Your task to perform on an android device: open app "Adobe Acrobat Reader" (install if not already installed) Image 0: 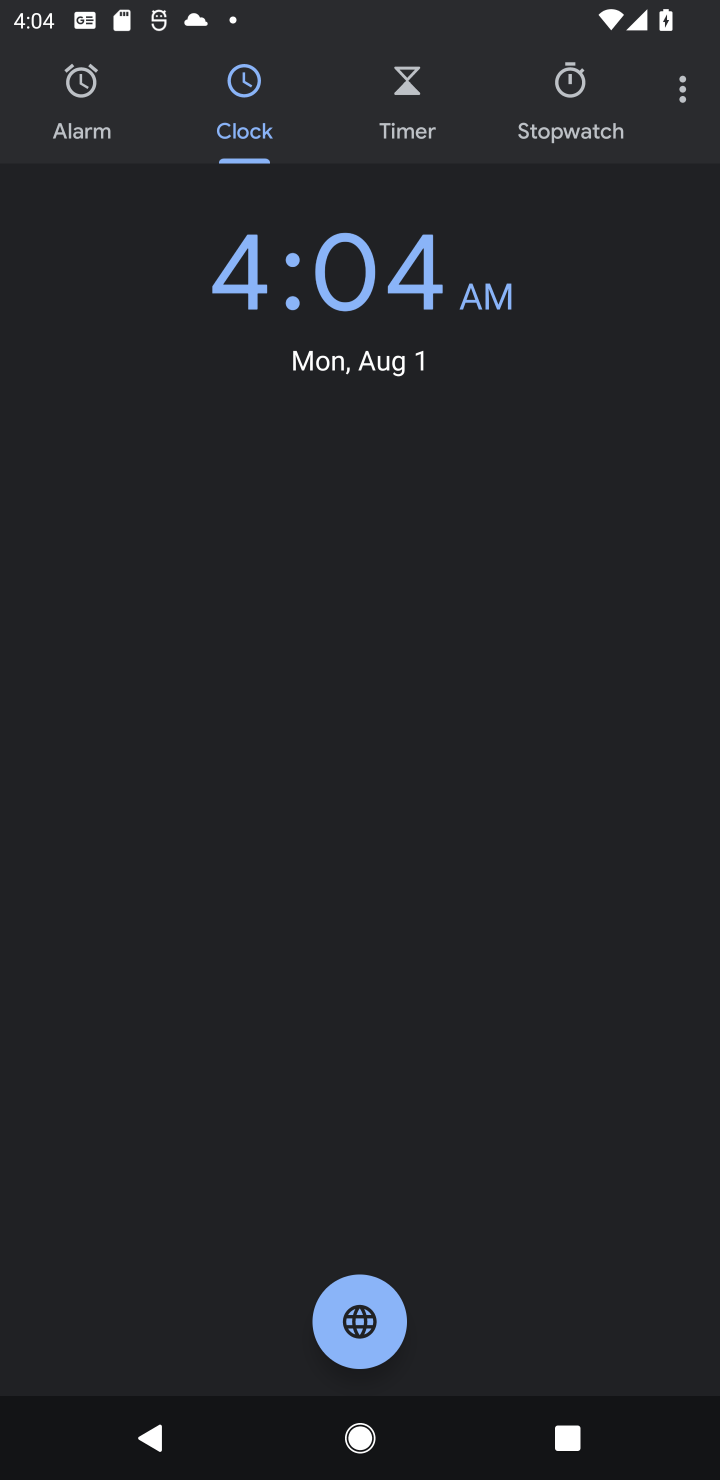
Step 0: press home button
Your task to perform on an android device: open app "Adobe Acrobat Reader" (install if not already installed) Image 1: 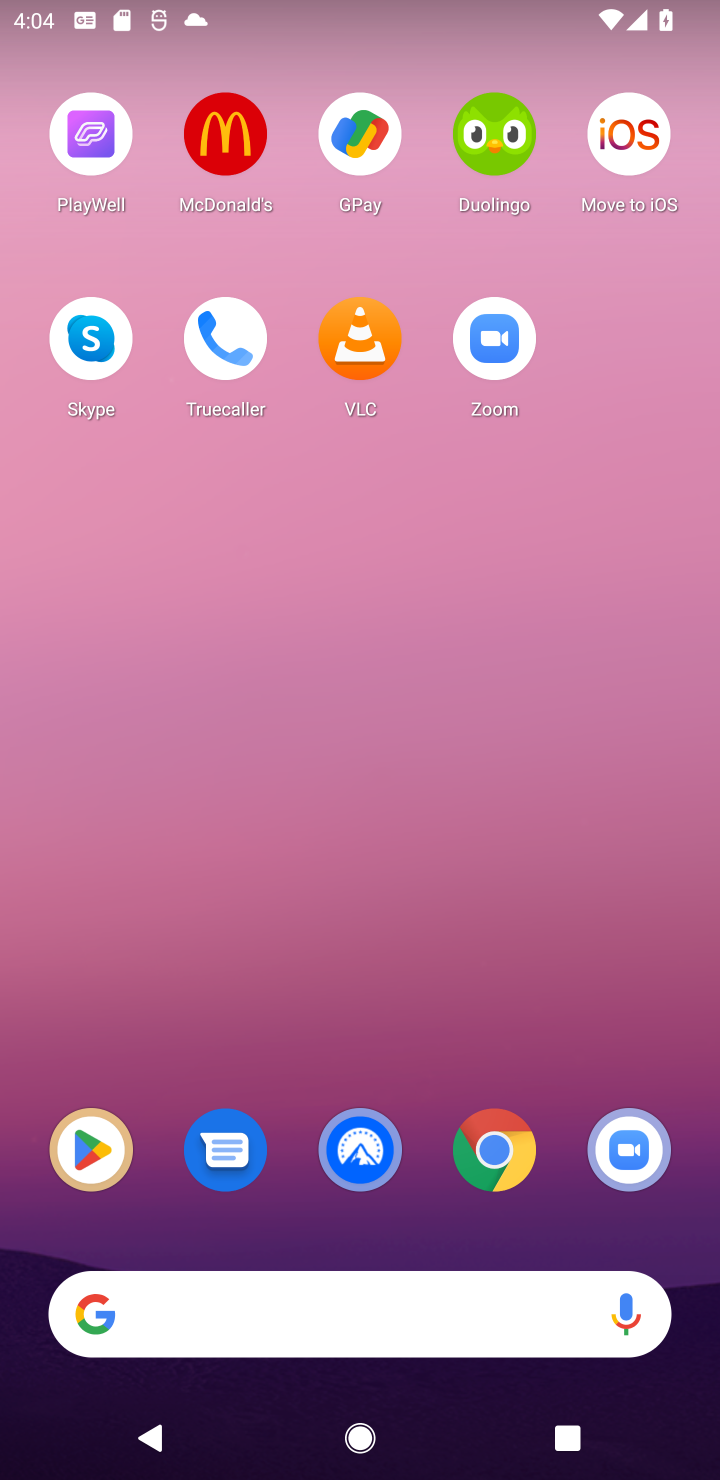
Step 1: click (388, 1295)
Your task to perform on an android device: open app "Adobe Acrobat Reader" (install if not already installed) Image 2: 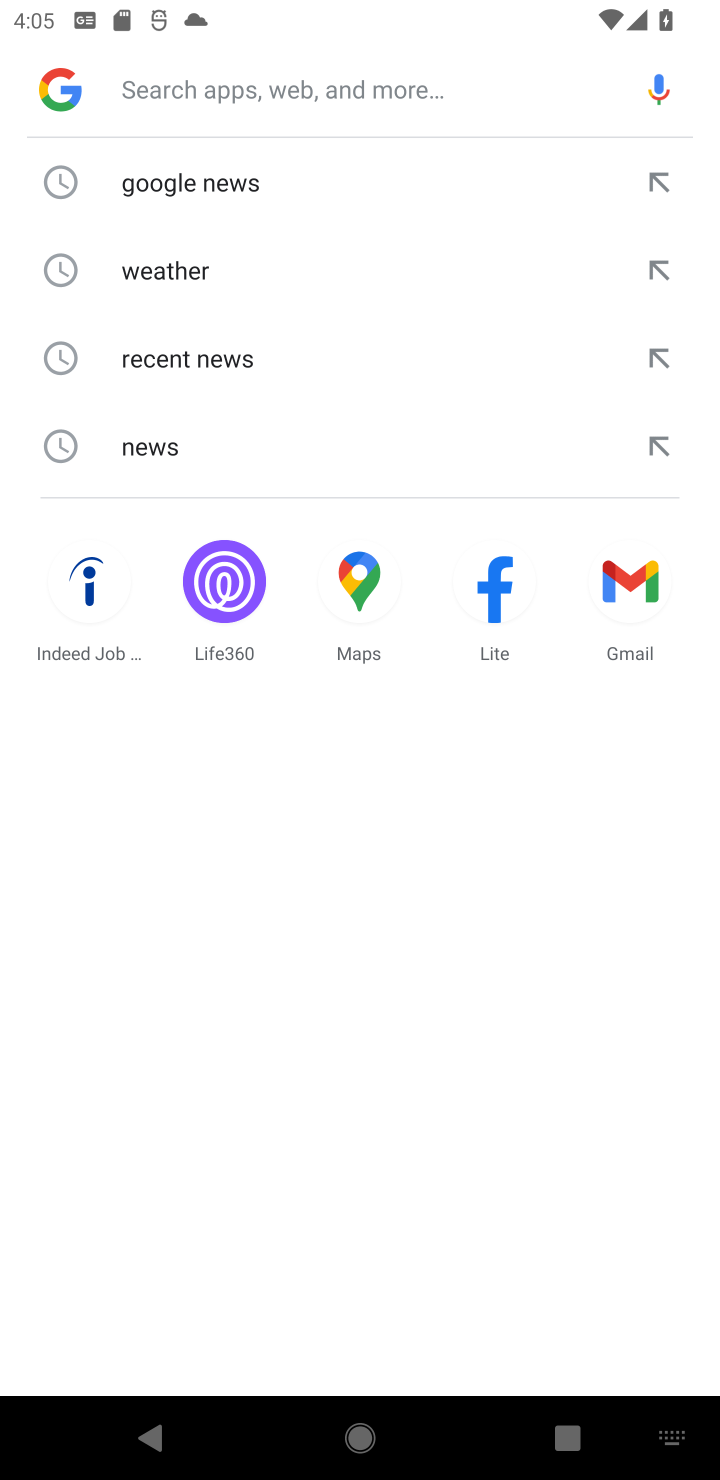
Step 2: type "adobe acrobat"
Your task to perform on an android device: open app "Adobe Acrobat Reader" (install if not already installed) Image 3: 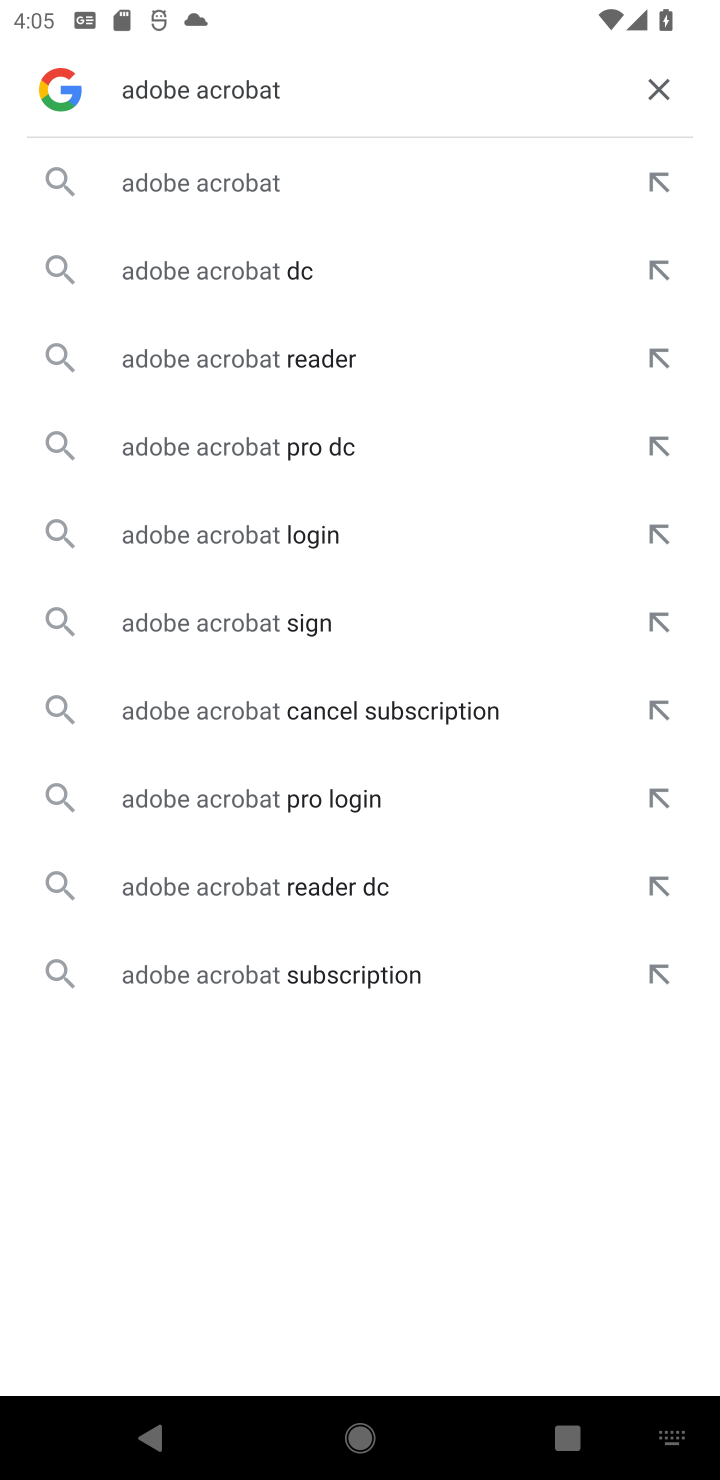
Step 3: click (388, 360)
Your task to perform on an android device: open app "Adobe Acrobat Reader" (install if not already installed) Image 4: 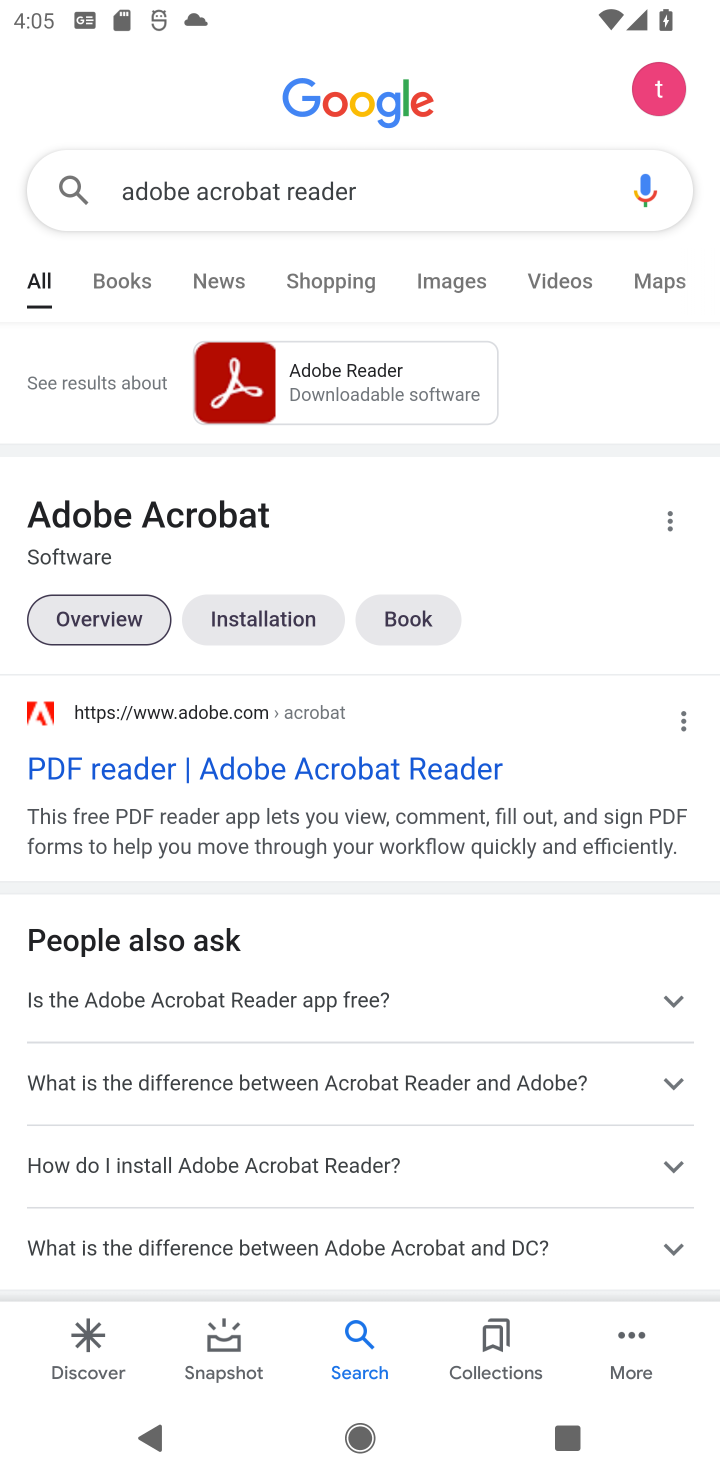
Step 4: drag from (477, 1115) to (471, 324)
Your task to perform on an android device: open app "Adobe Acrobat Reader" (install if not already installed) Image 5: 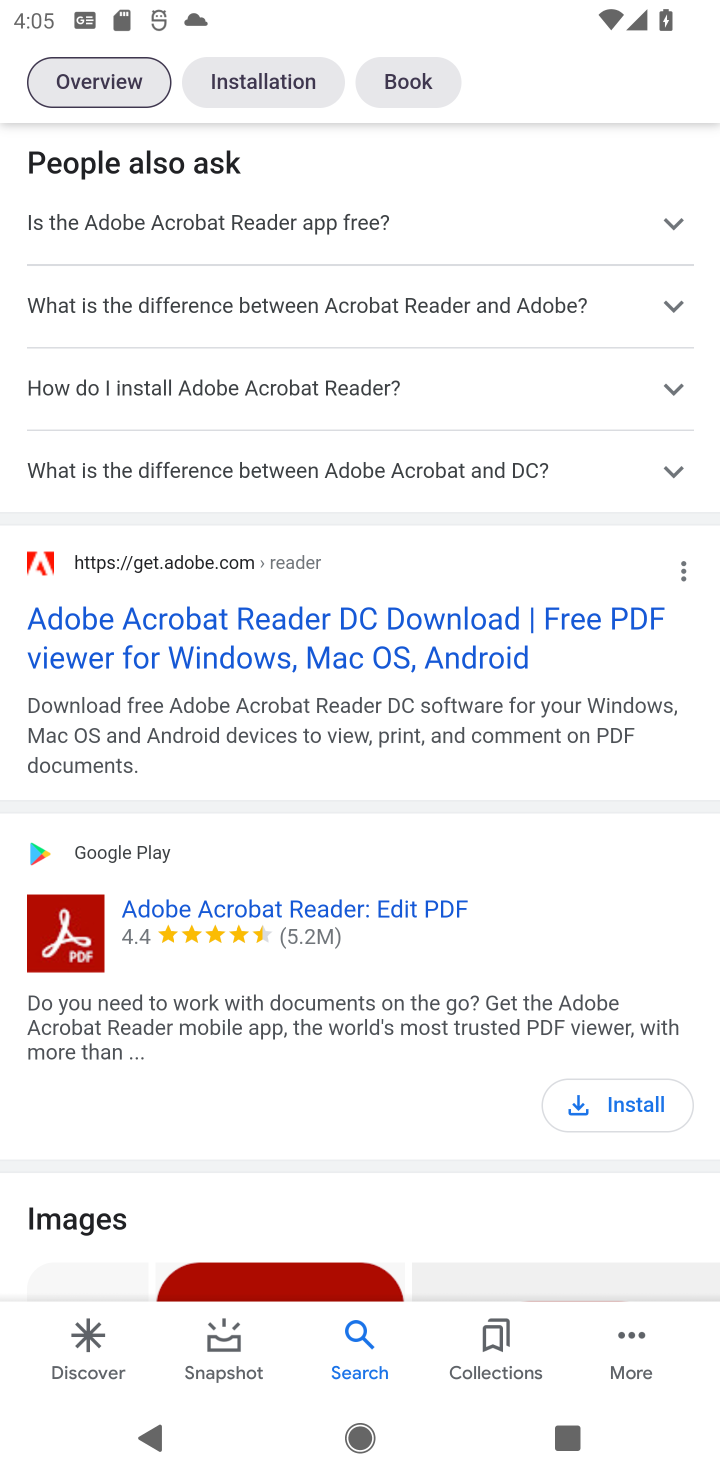
Step 5: click (635, 1121)
Your task to perform on an android device: open app "Adobe Acrobat Reader" (install if not already installed) Image 6: 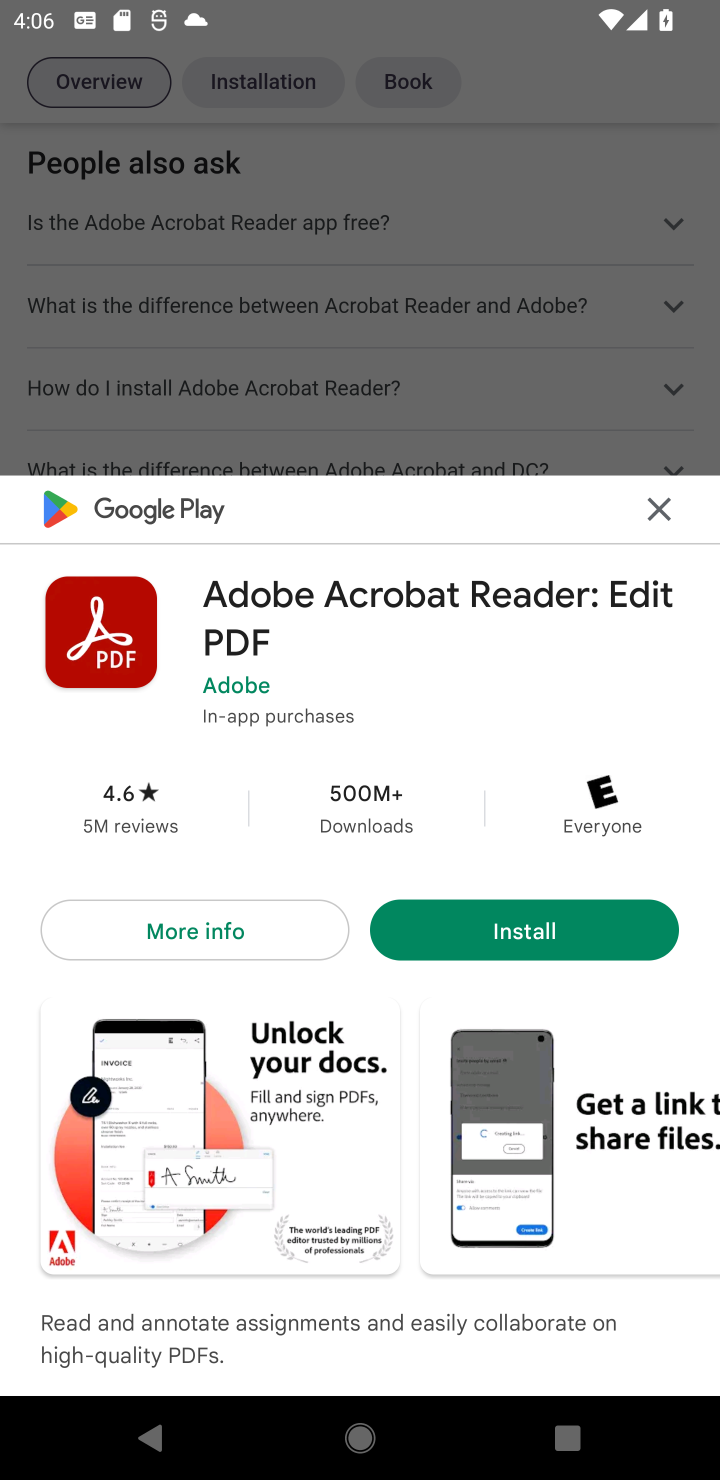
Step 6: click (595, 912)
Your task to perform on an android device: open app "Adobe Acrobat Reader" (install if not already installed) Image 7: 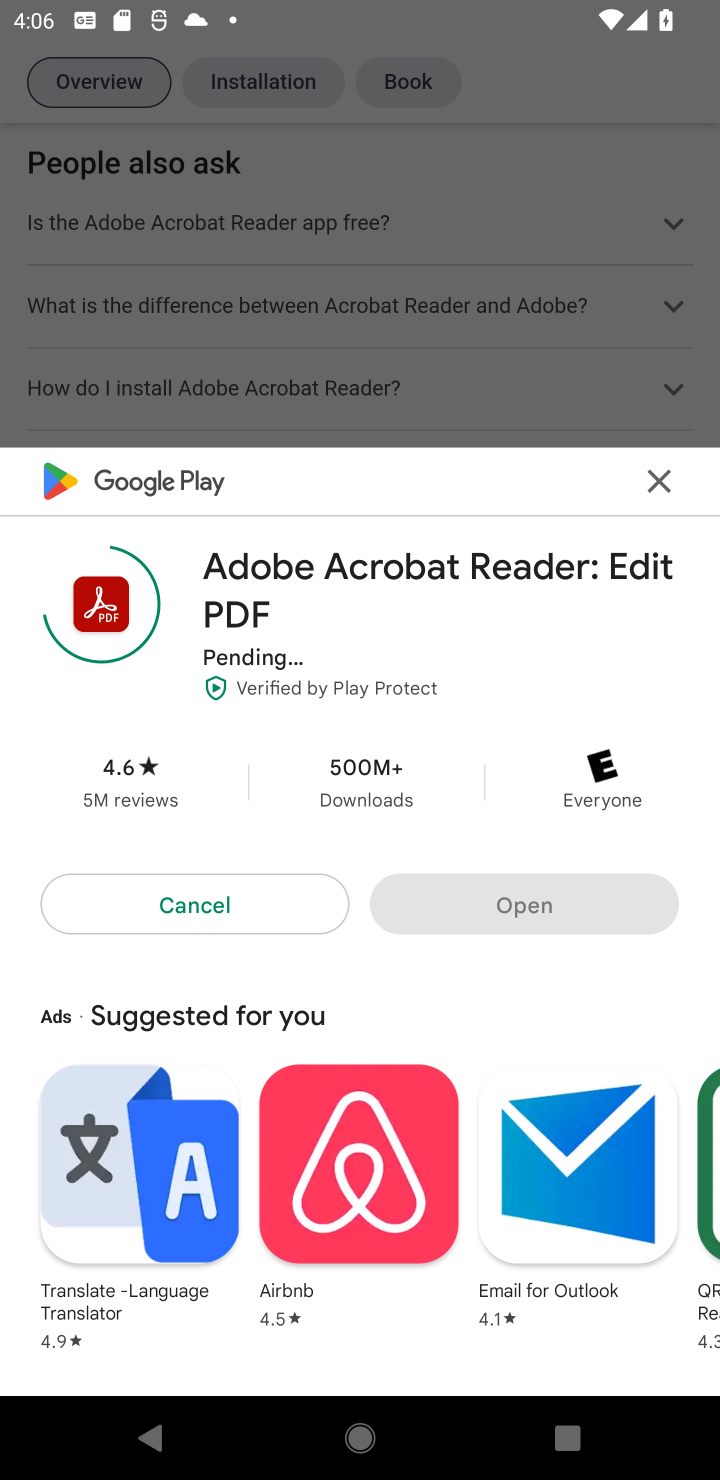
Step 7: click (541, 911)
Your task to perform on an android device: open app "Adobe Acrobat Reader" (install if not already installed) Image 8: 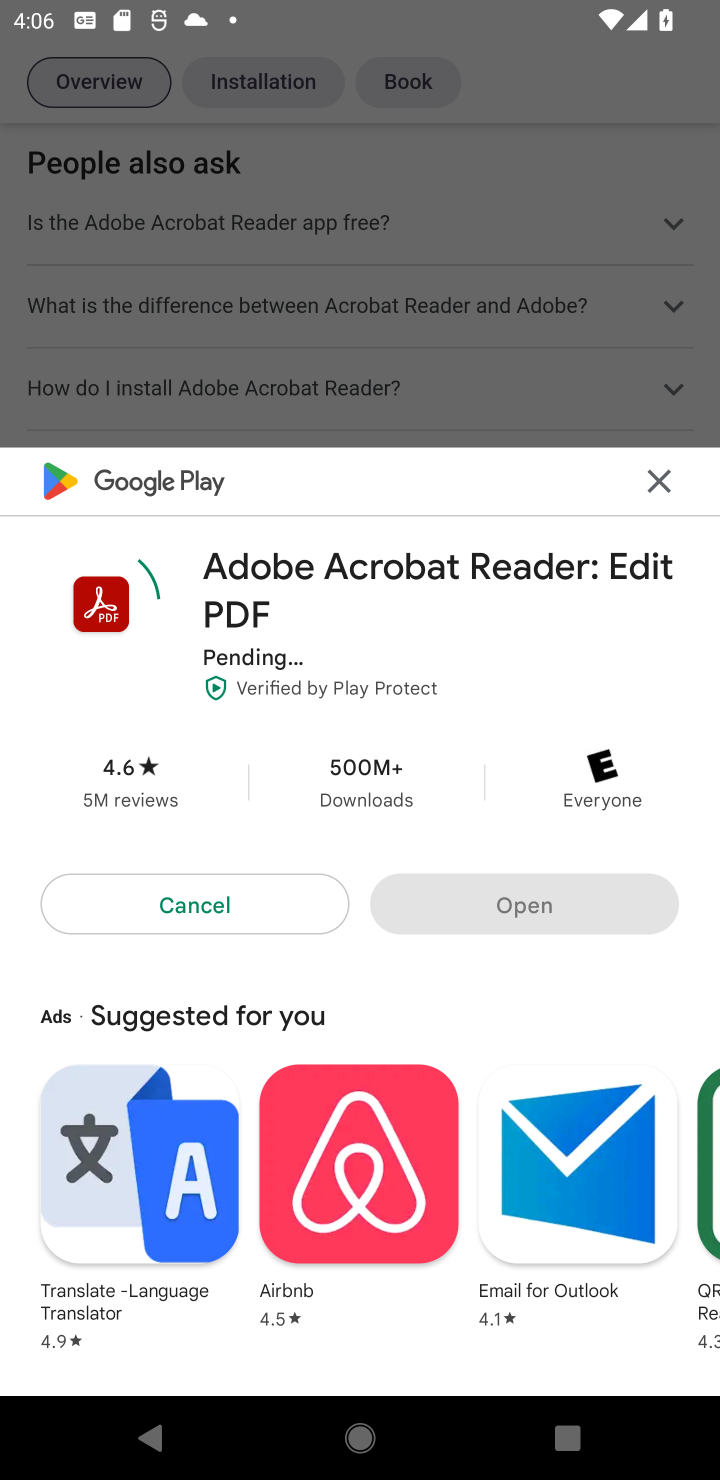
Step 8: click (541, 930)
Your task to perform on an android device: open app "Adobe Acrobat Reader" (install if not already installed) Image 9: 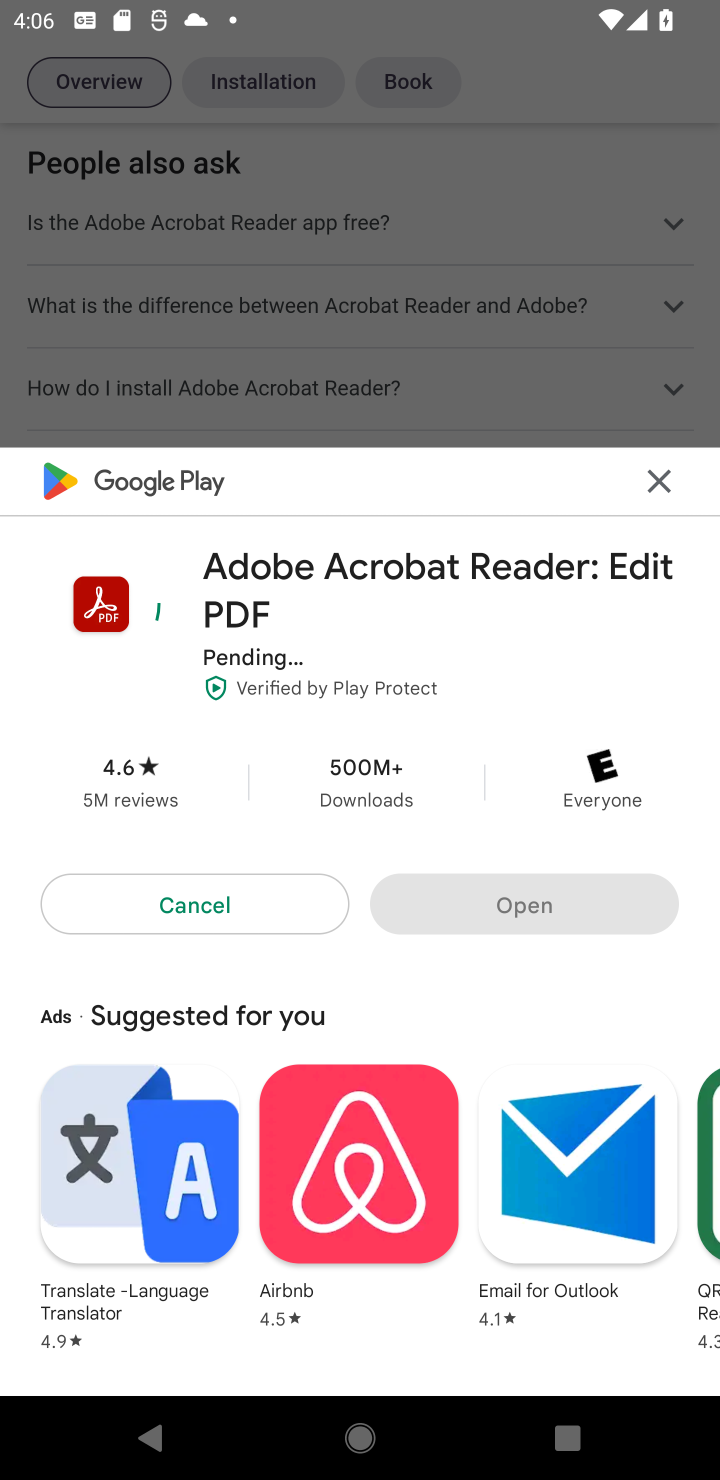
Step 9: click (586, 923)
Your task to perform on an android device: open app "Adobe Acrobat Reader" (install if not already installed) Image 10: 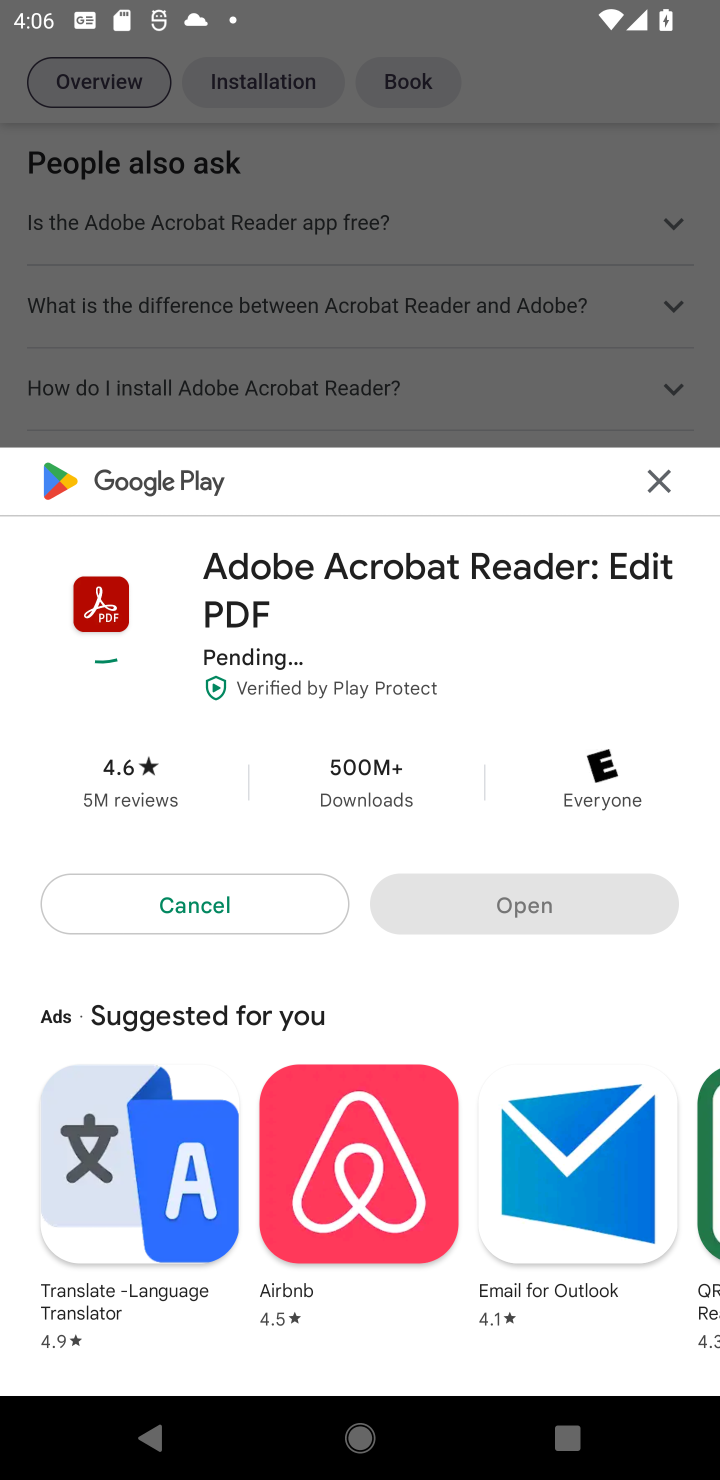
Step 10: task complete